Your task to perform on an android device: empty trash in google photos Image 0: 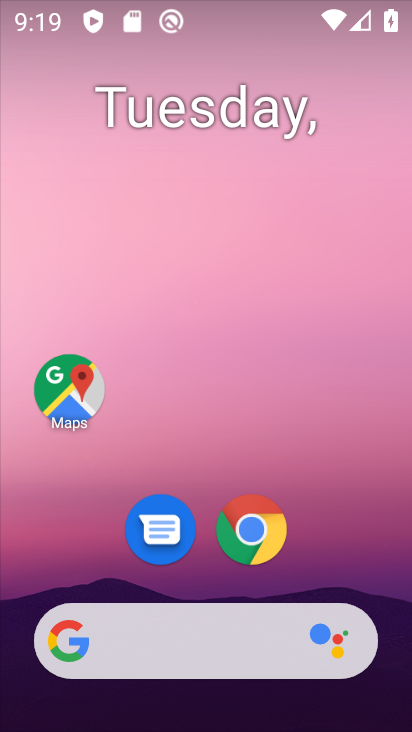
Step 0: drag from (345, 538) to (304, 110)
Your task to perform on an android device: empty trash in google photos Image 1: 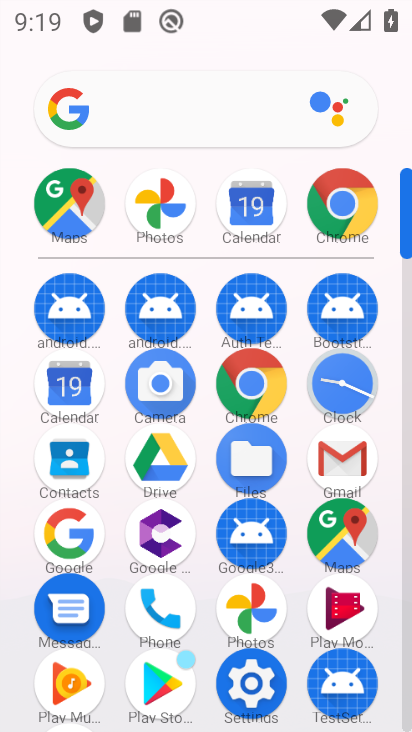
Step 1: click (266, 620)
Your task to perform on an android device: empty trash in google photos Image 2: 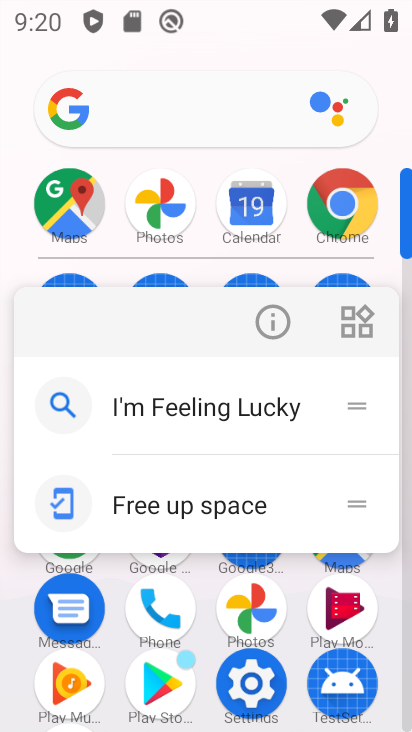
Step 2: click (275, 611)
Your task to perform on an android device: empty trash in google photos Image 3: 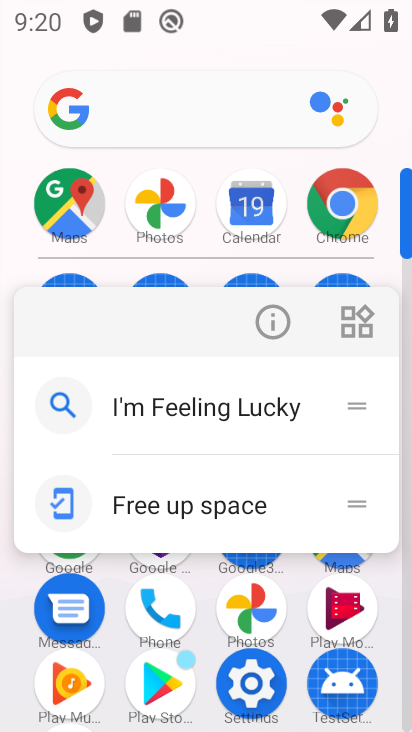
Step 3: click (275, 613)
Your task to perform on an android device: empty trash in google photos Image 4: 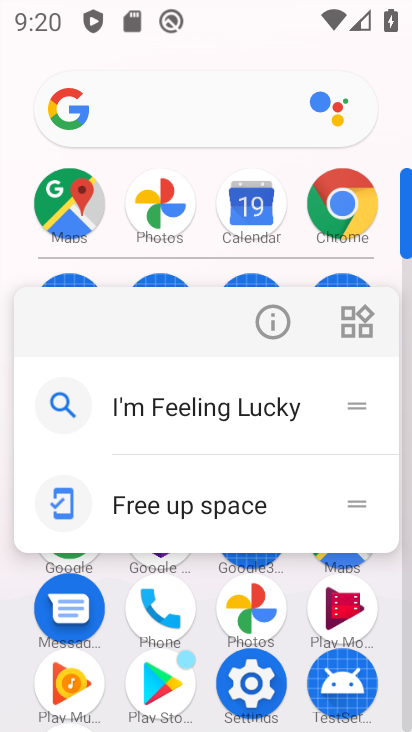
Step 4: click (249, 613)
Your task to perform on an android device: empty trash in google photos Image 5: 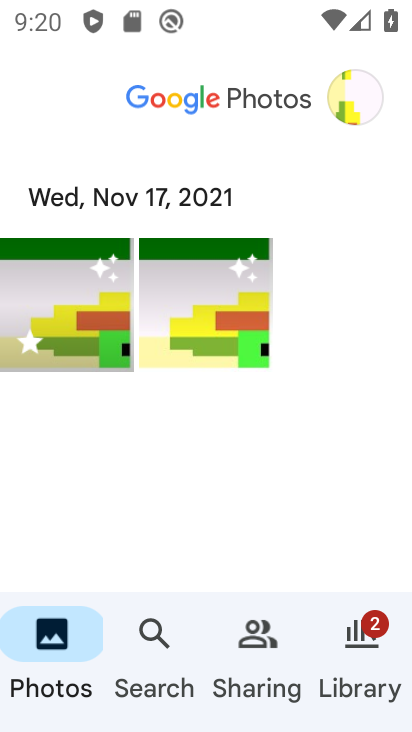
Step 5: click (361, 114)
Your task to perform on an android device: empty trash in google photos Image 6: 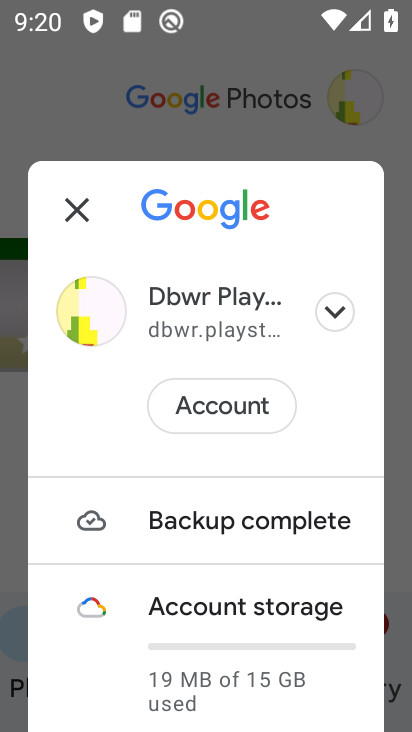
Step 6: drag from (251, 557) to (272, 237)
Your task to perform on an android device: empty trash in google photos Image 7: 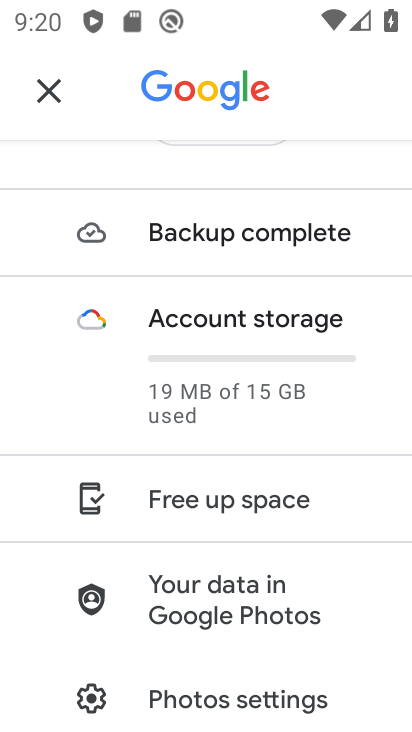
Step 7: drag from (243, 593) to (255, 359)
Your task to perform on an android device: empty trash in google photos Image 8: 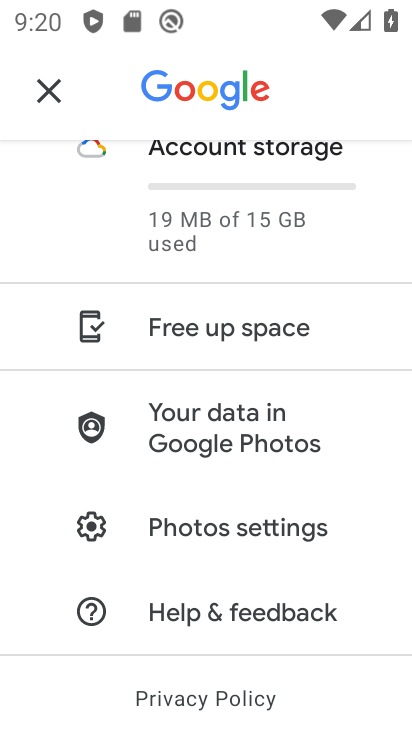
Step 8: click (53, 93)
Your task to perform on an android device: empty trash in google photos Image 9: 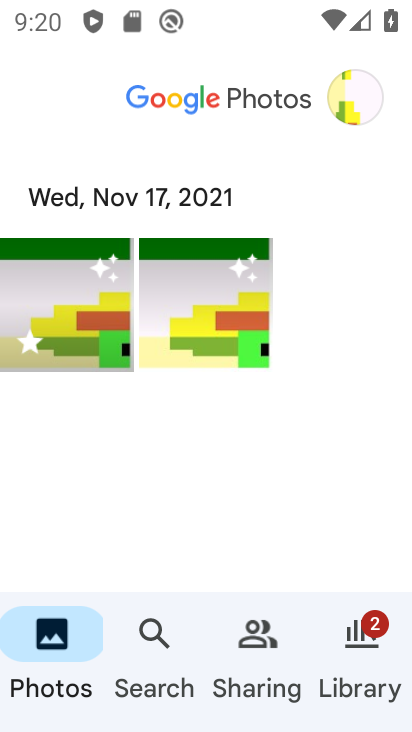
Step 9: click (386, 630)
Your task to perform on an android device: empty trash in google photos Image 10: 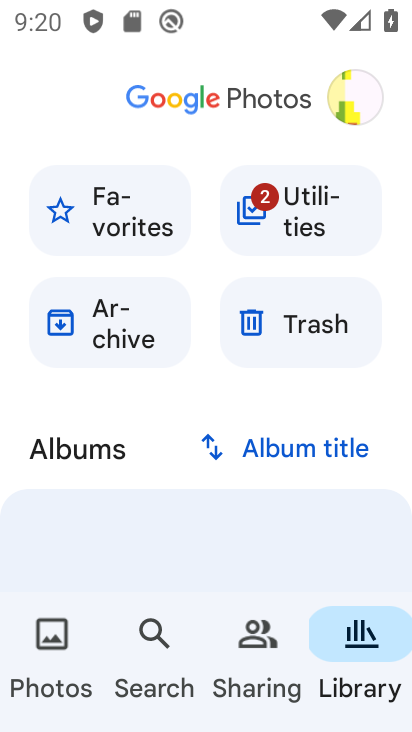
Step 10: click (298, 314)
Your task to perform on an android device: empty trash in google photos Image 11: 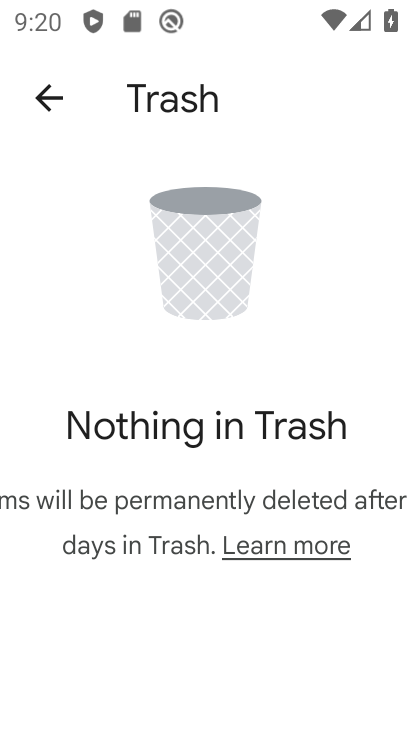
Step 11: task complete